Your task to perform on an android device: Is it going to rain today? Image 0: 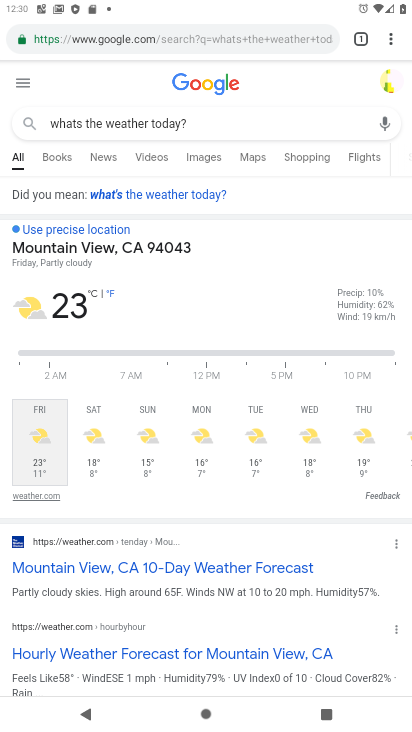
Step 0: click (224, 36)
Your task to perform on an android device: Is it going to rain today? Image 1: 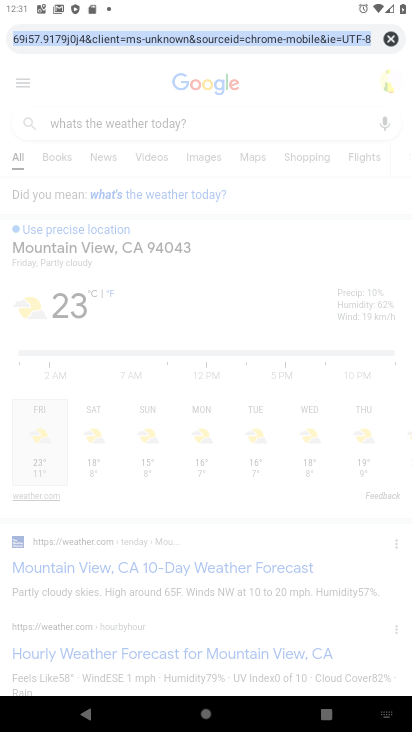
Step 1: type "is it going to rain today?"
Your task to perform on an android device: Is it going to rain today? Image 2: 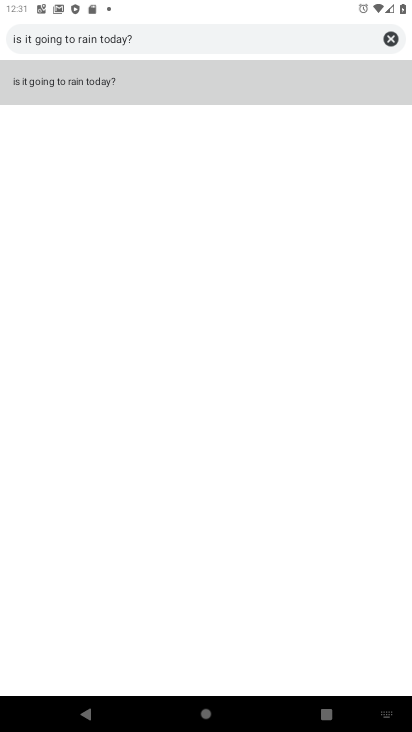
Step 2: click (111, 85)
Your task to perform on an android device: Is it going to rain today? Image 3: 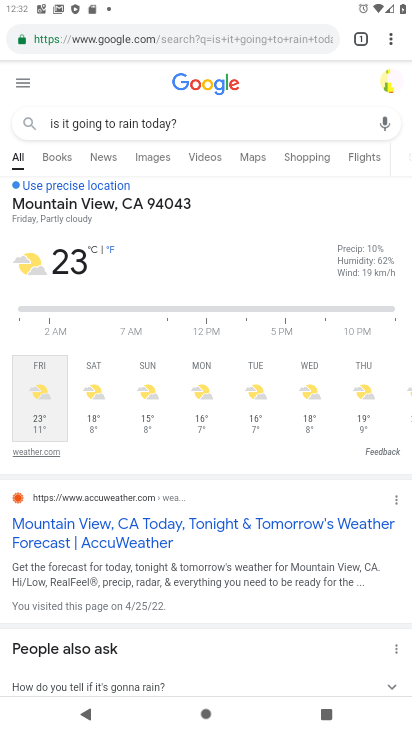
Step 3: task complete